Your task to perform on an android device: turn on showing notifications on the lock screen Image 0: 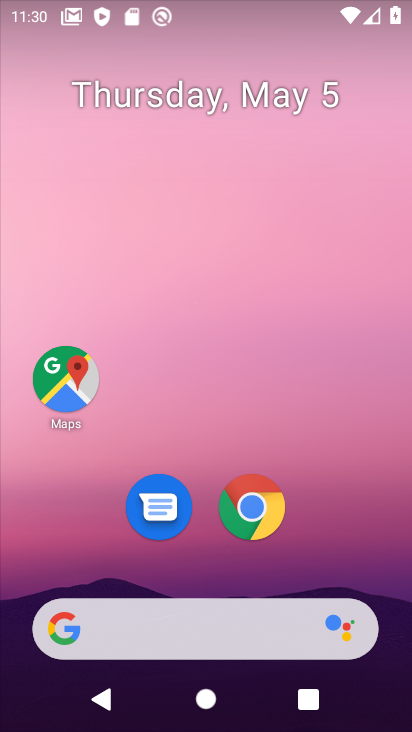
Step 0: drag from (339, 426) to (229, 78)
Your task to perform on an android device: turn on showing notifications on the lock screen Image 1: 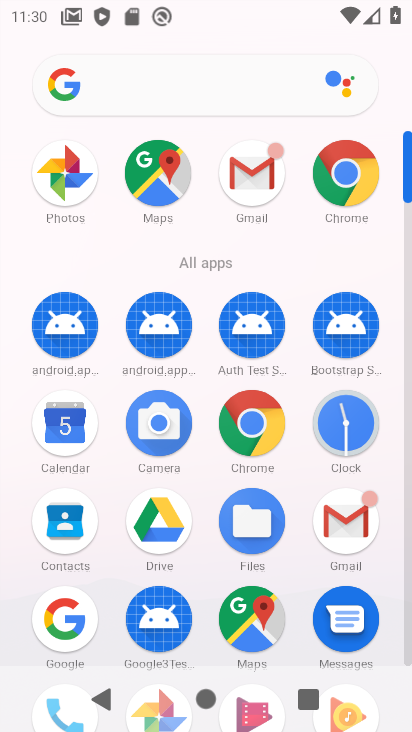
Step 1: drag from (312, 564) to (284, 184)
Your task to perform on an android device: turn on showing notifications on the lock screen Image 2: 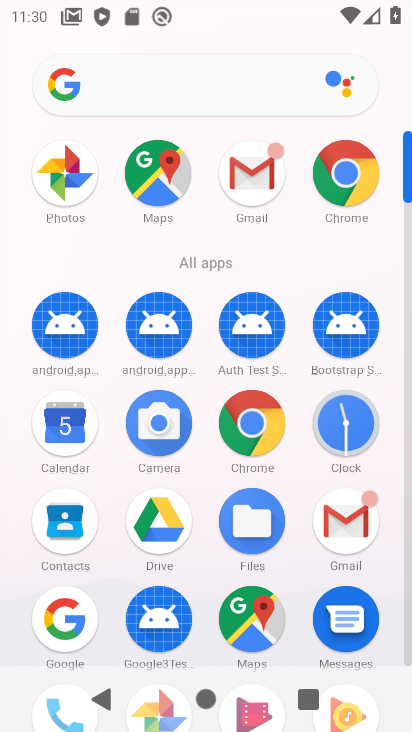
Step 2: drag from (328, 520) to (283, 155)
Your task to perform on an android device: turn on showing notifications on the lock screen Image 3: 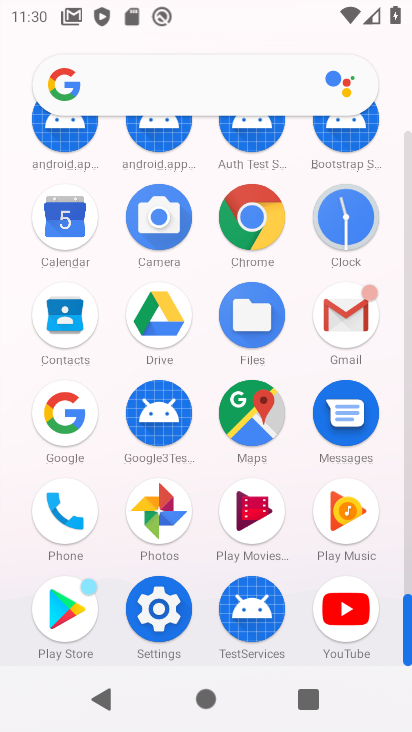
Step 3: click (145, 597)
Your task to perform on an android device: turn on showing notifications on the lock screen Image 4: 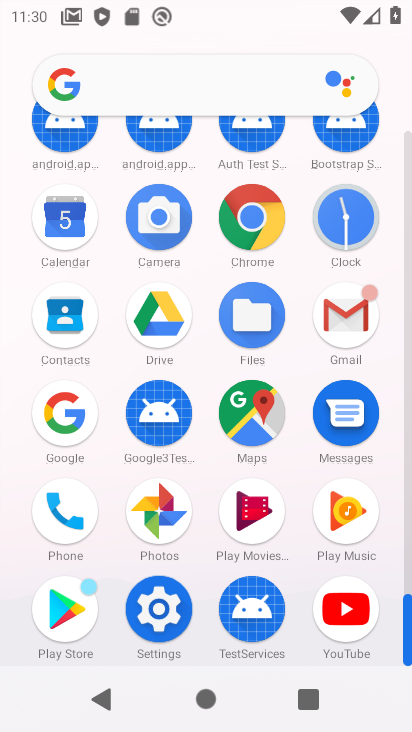
Step 4: click (153, 612)
Your task to perform on an android device: turn on showing notifications on the lock screen Image 5: 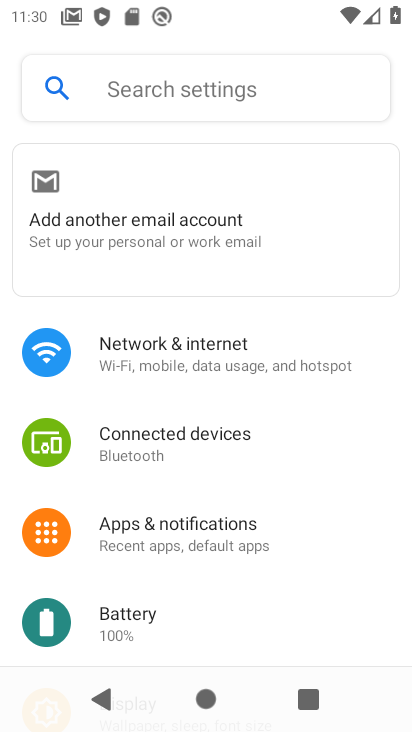
Step 5: drag from (212, 556) to (140, 159)
Your task to perform on an android device: turn on showing notifications on the lock screen Image 6: 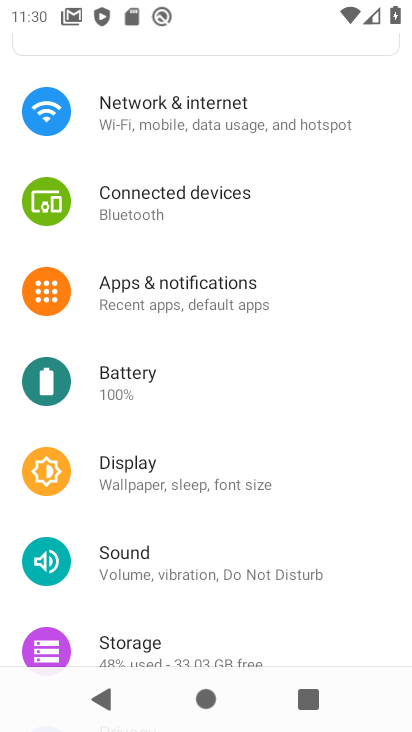
Step 6: drag from (226, 479) to (191, 165)
Your task to perform on an android device: turn on showing notifications on the lock screen Image 7: 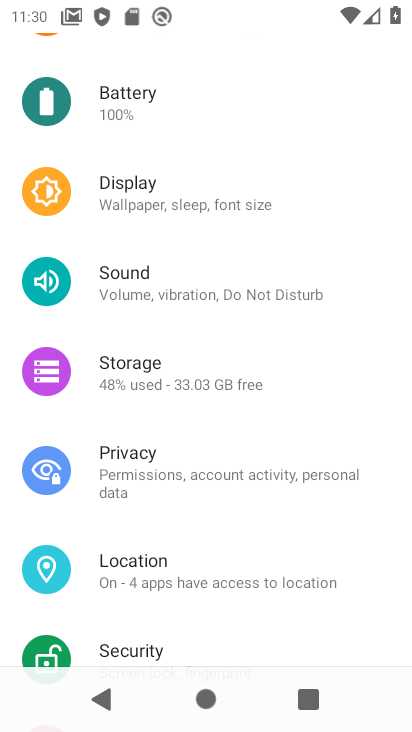
Step 7: drag from (155, 217) to (247, 551)
Your task to perform on an android device: turn on showing notifications on the lock screen Image 8: 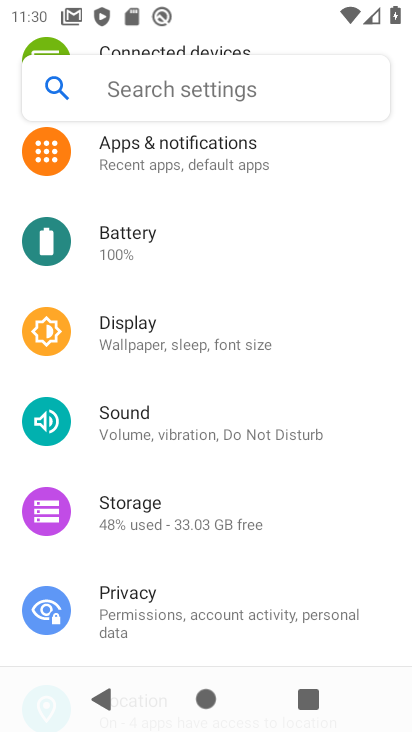
Step 8: drag from (210, 273) to (277, 598)
Your task to perform on an android device: turn on showing notifications on the lock screen Image 9: 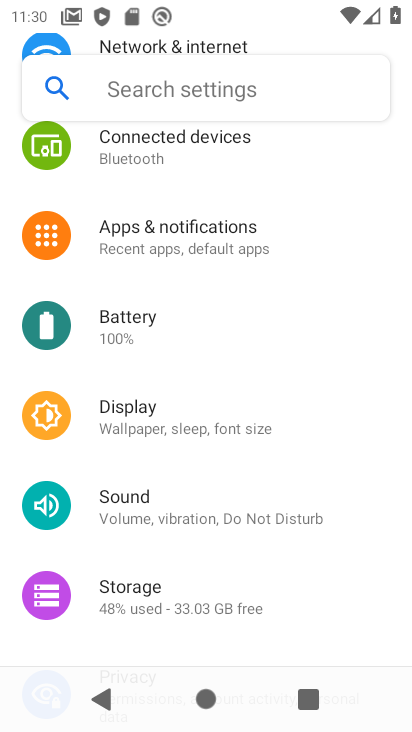
Step 9: click (181, 235)
Your task to perform on an android device: turn on showing notifications on the lock screen Image 10: 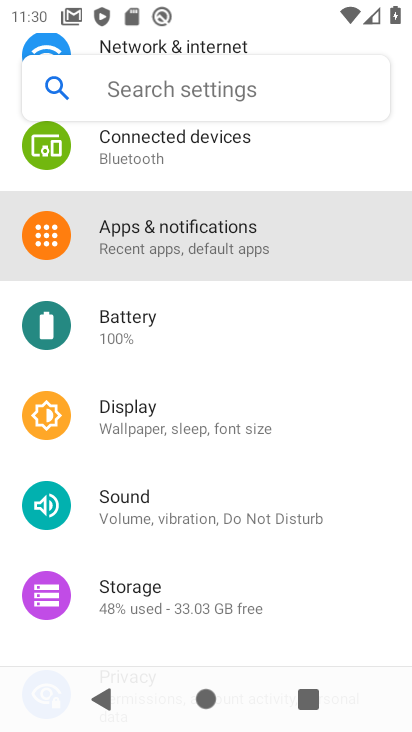
Step 10: click (181, 236)
Your task to perform on an android device: turn on showing notifications on the lock screen Image 11: 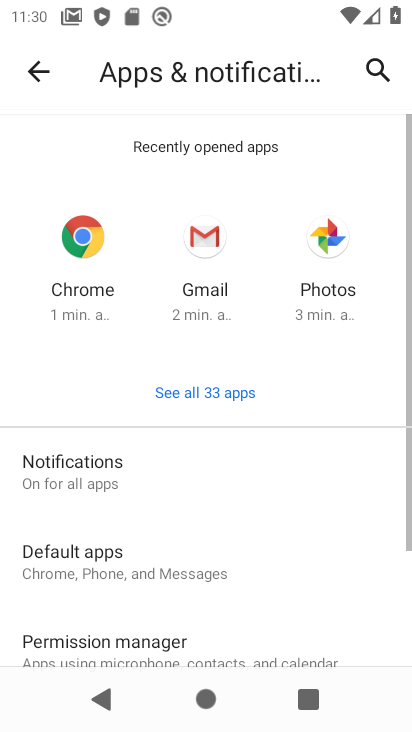
Step 11: click (87, 458)
Your task to perform on an android device: turn on showing notifications on the lock screen Image 12: 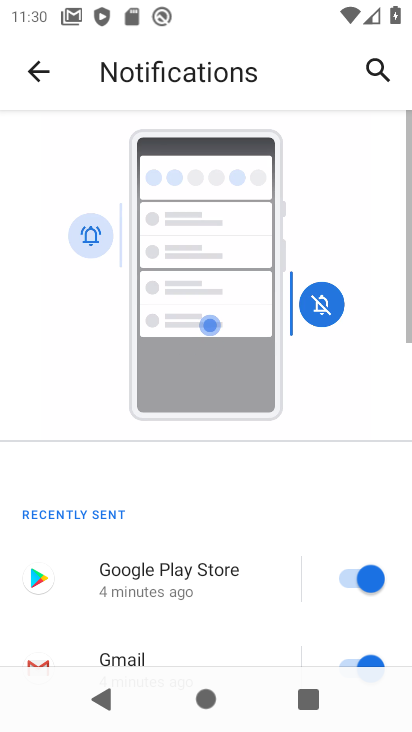
Step 12: drag from (197, 559) to (197, 192)
Your task to perform on an android device: turn on showing notifications on the lock screen Image 13: 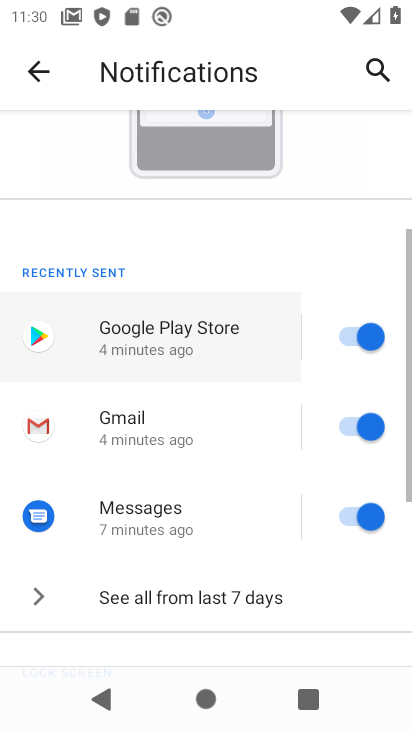
Step 13: drag from (254, 488) to (265, 173)
Your task to perform on an android device: turn on showing notifications on the lock screen Image 14: 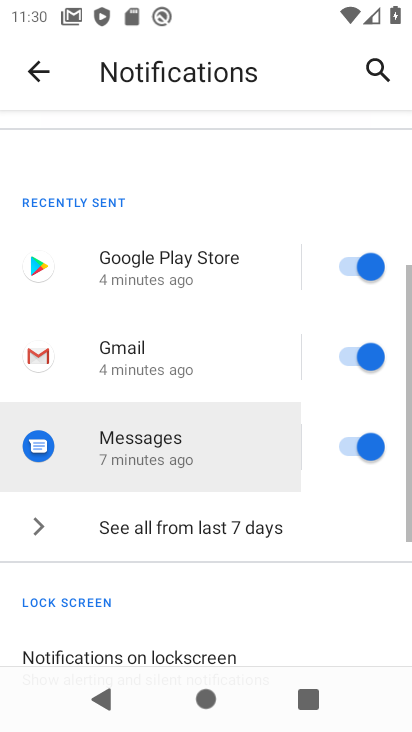
Step 14: drag from (263, 438) to (273, 155)
Your task to perform on an android device: turn on showing notifications on the lock screen Image 15: 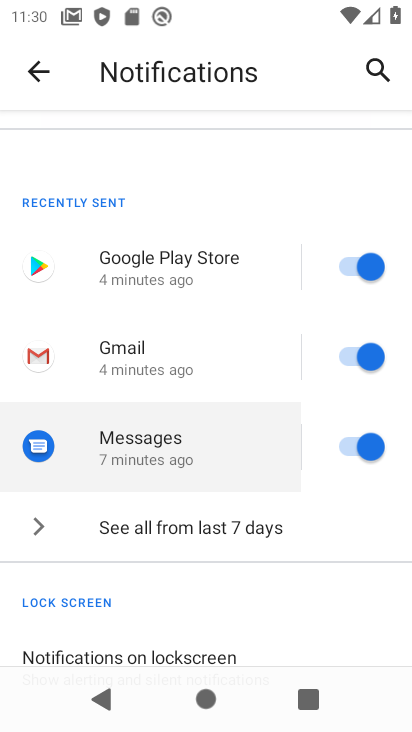
Step 15: drag from (246, 321) to (245, 281)
Your task to perform on an android device: turn on showing notifications on the lock screen Image 16: 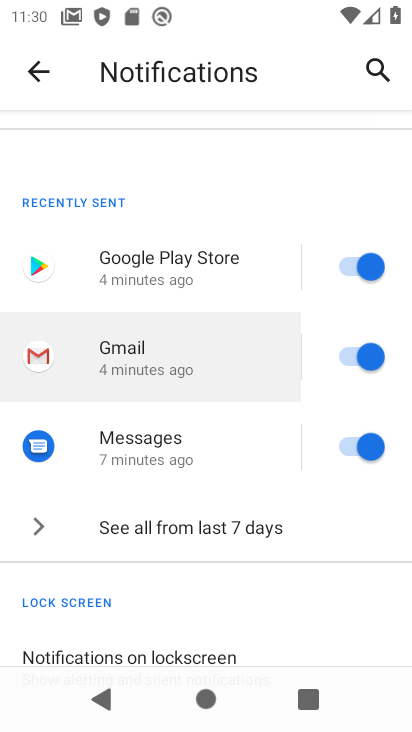
Step 16: drag from (215, 563) to (208, 193)
Your task to perform on an android device: turn on showing notifications on the lock screen Image 17: 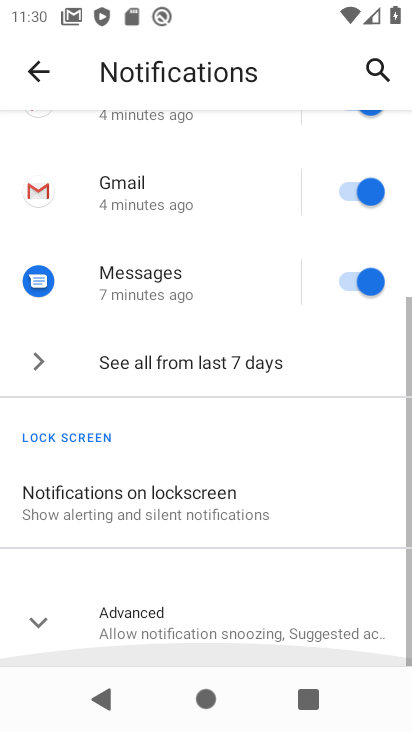
Step 17: drag from (233, 472) to (261, 121)
Your task to perform on an android device: turn on showing notifications on the lock screen Image 18: 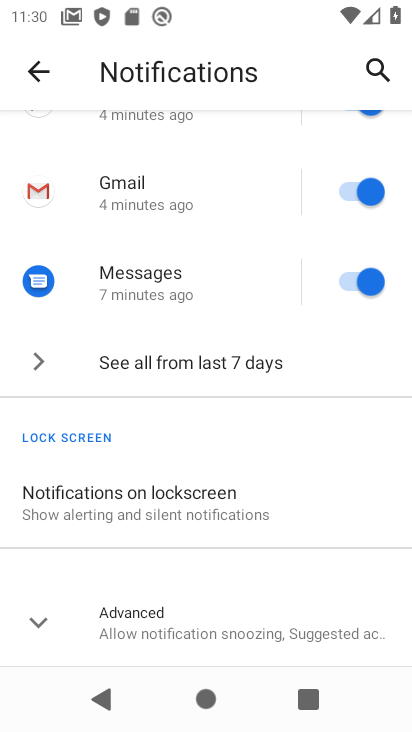
Step 18: click (197, 499)
Your task to perform on an android device: turn on showing notifications on the lock screen Image 19: 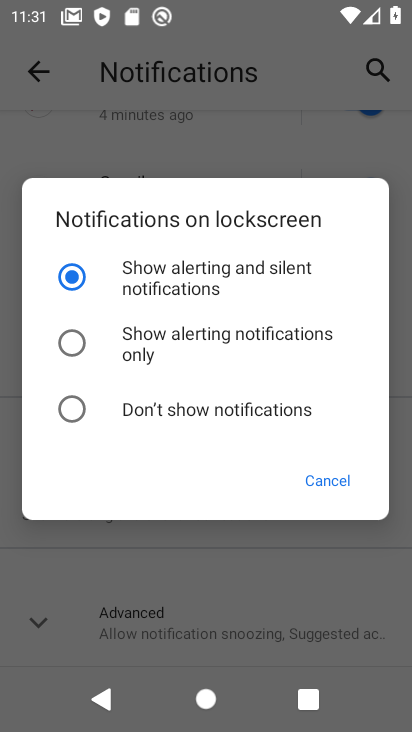
Step 19: click (344, 479)
Your task to perform on an android device: turn on showing notifications on the lock screen Image 20: 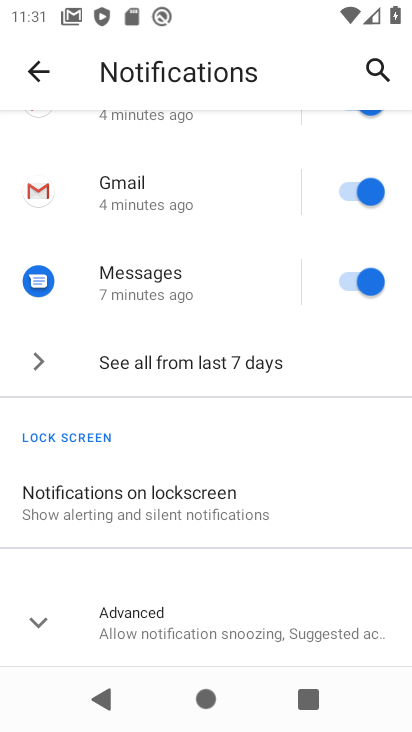
Step 20: task complete